Your task to perform on an android device: Open the web browser Image 0: 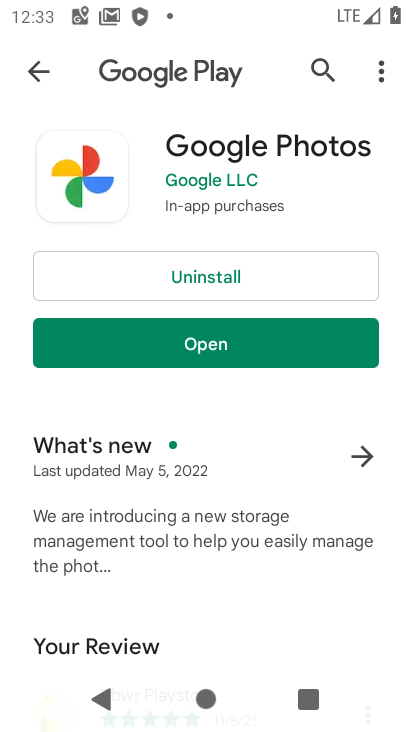
Step 0: press home button
Your task to perform on an android device: Open the web browser Image 1: 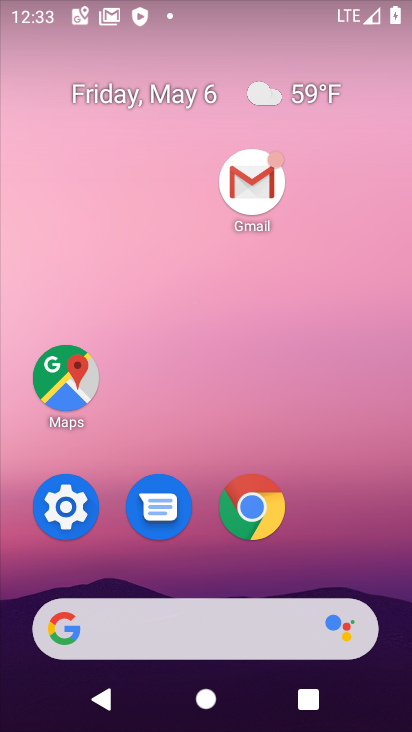
Step 1: click (255, 509)
Your task to perform on an android device: Open the web browser Image 2: 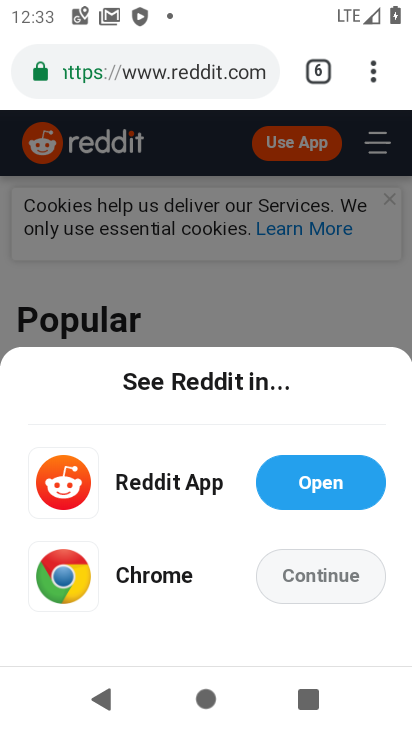
Step 2: click (140, 574)
Your task to perform on an android device: Open the web browser Image 3: 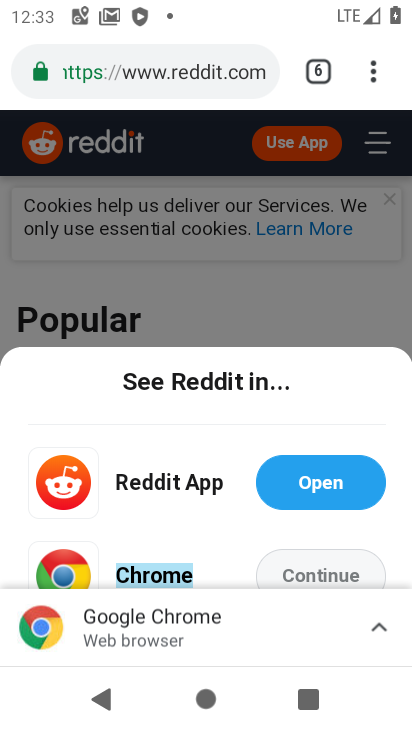
Step 3: click (308, 570)
Your task to perform on an android device: Open the web browser Image 4: 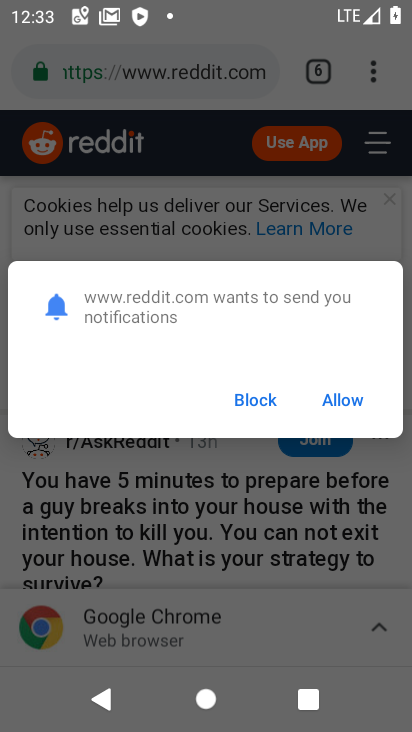
Step 4: click (333, 394)
Your task to perform on an android device: Open the web browser Image 5: 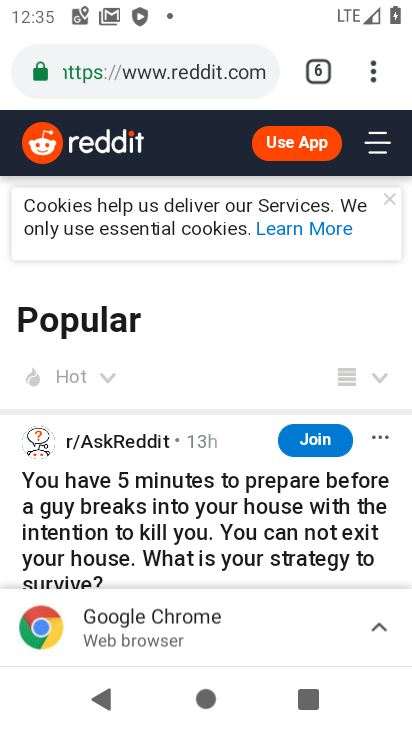
Step 5: task complete